Your task to perform on an android device: see creations saved in the google photos Image 0: 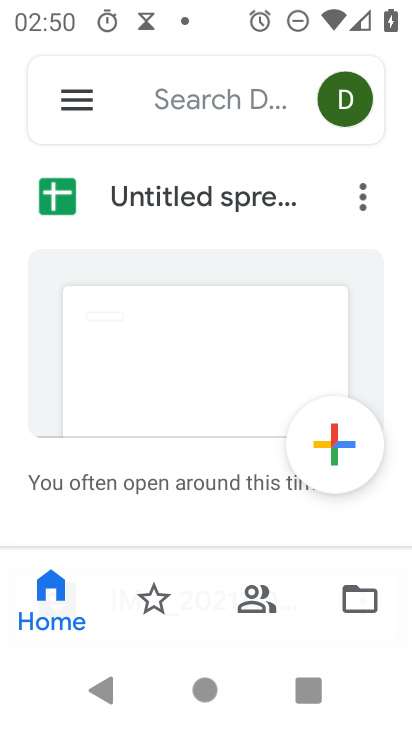
Step 0: press home button
Your task to perform on an android device: see creations saved in the google photos Image 1: 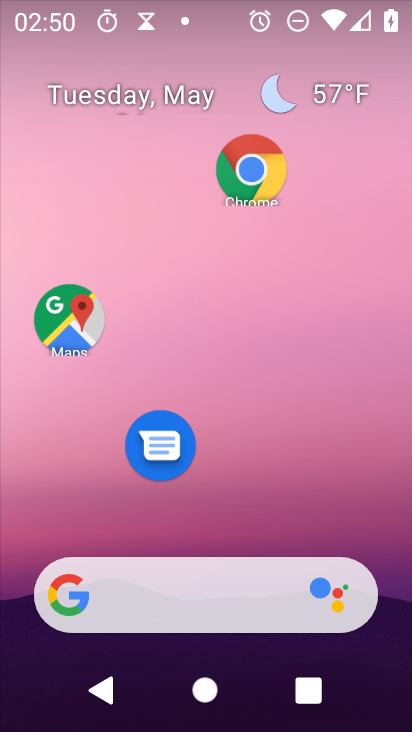
Step 1: drag from (233, 718) to (189, 134)
Your task to perform on an android device: see creations saved in the google photos Image 2: 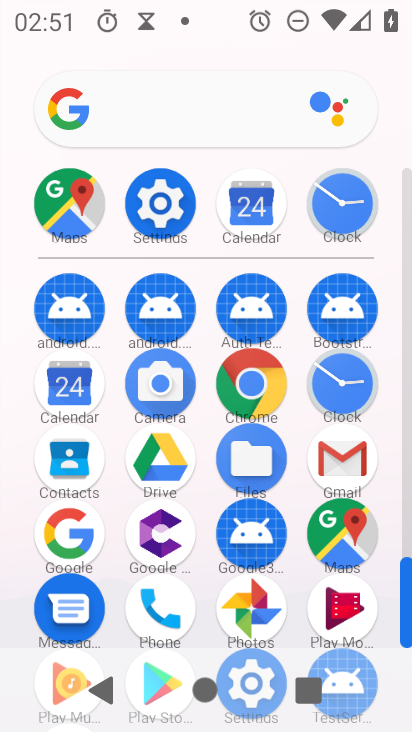
Step 2: click (253, 609)
Your task to perform on an android device: see creations saved in the google photos Image 3: 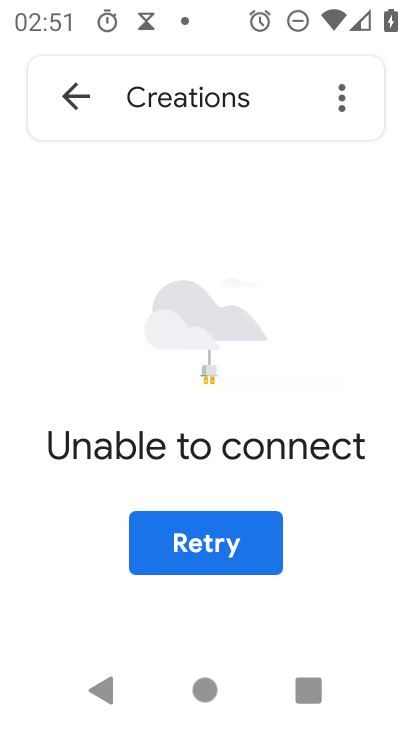
Step 3: click (206, 541)
Your task to perform on an android device: see creations saved in the google photos Image 4: 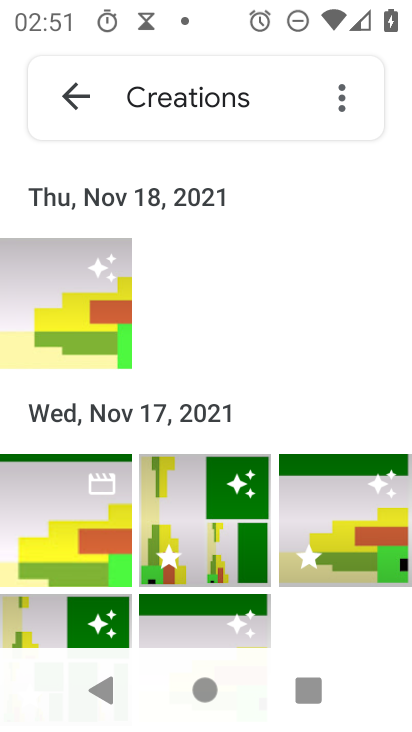
Step 4: task complete